Your task to perform on an android device: turn pop-ups on in chrome Image 0: 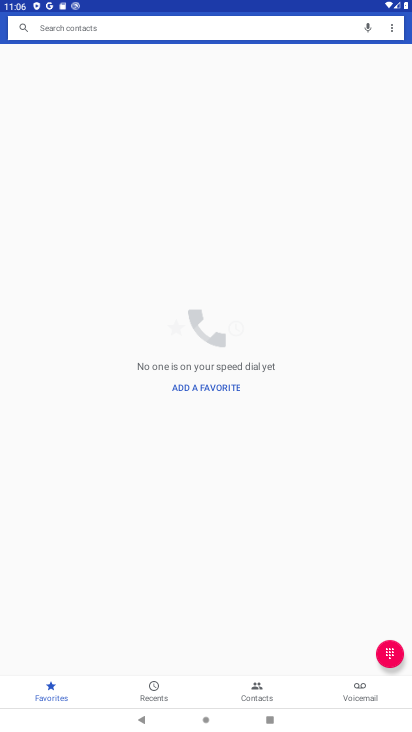
Step 0: press home button
Your task to perform on an android device: turn pop-ups on in chrome Image 1: 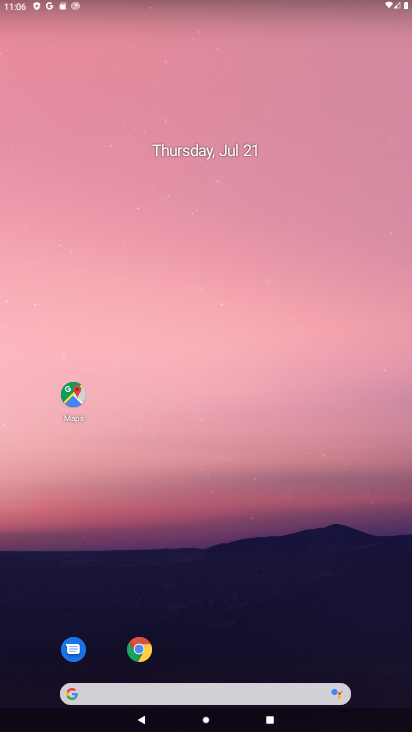
Step 1: click (139, 650)
Your task to perform on an android device: turn pop-ups on in chrome Image 2: 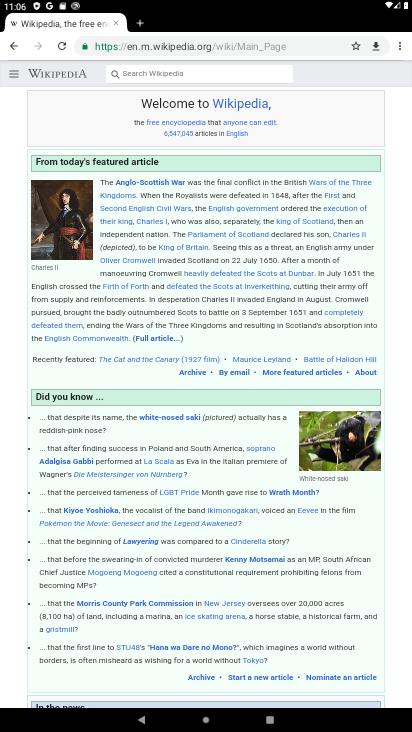
Step 2: click (400, 52)
Your task to perform on an android device: turn pop-ups on in chrome Image 3: 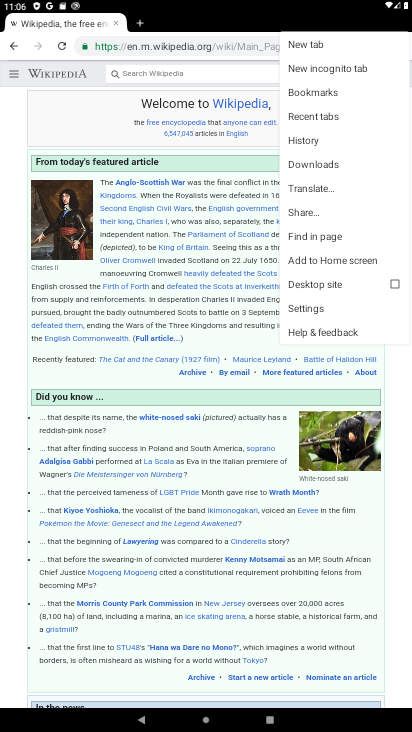
Step 3: click (307, 308)
Your task to perform on an android device: turn pop-ups on in chrome Image 4: 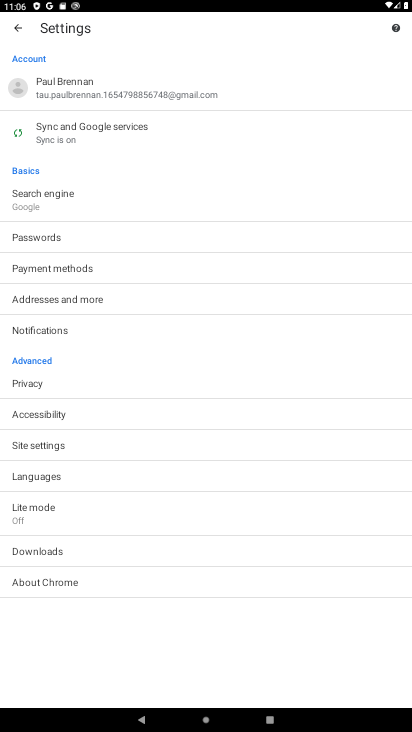
Step 4: click (45, 446)
Your task to perform on an android device: turn pop-ups on in chrome Image 5: 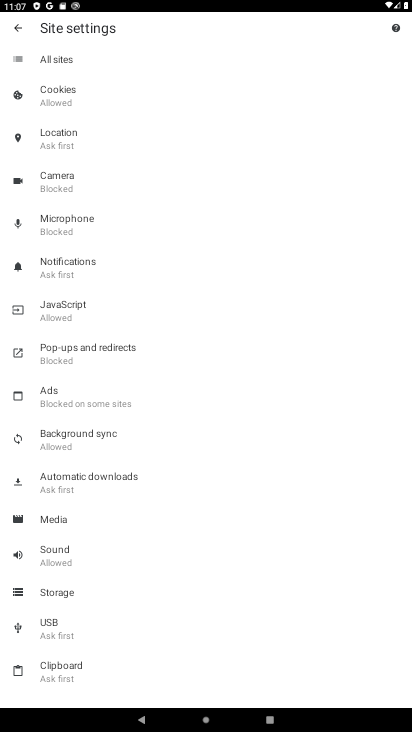
Step 5: click (81, 344)
Your task to perform on an android device: turn pop-ups on in chrome Image 6: 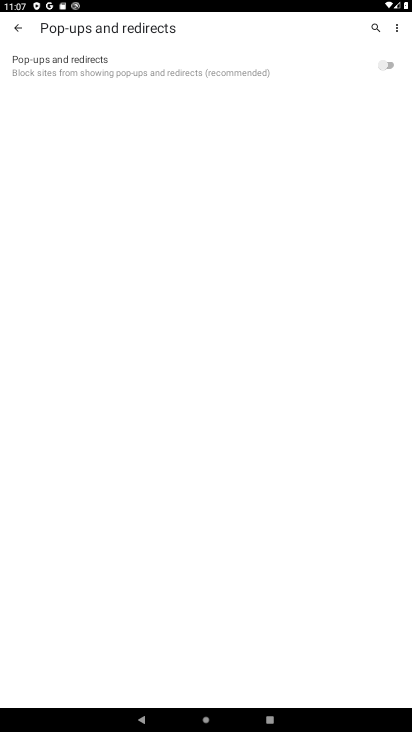
Step 6: click (393, 64)
Your task to perform on an android device: turn pop-ups on in chrome Image 7: 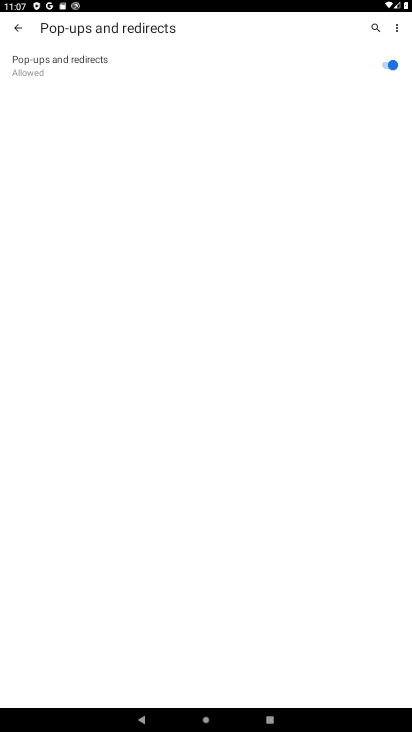
Step 7: task complete